Your task to perform on an android device: Open Google Chrome and click the shortcut for Amazon.com Image 0: 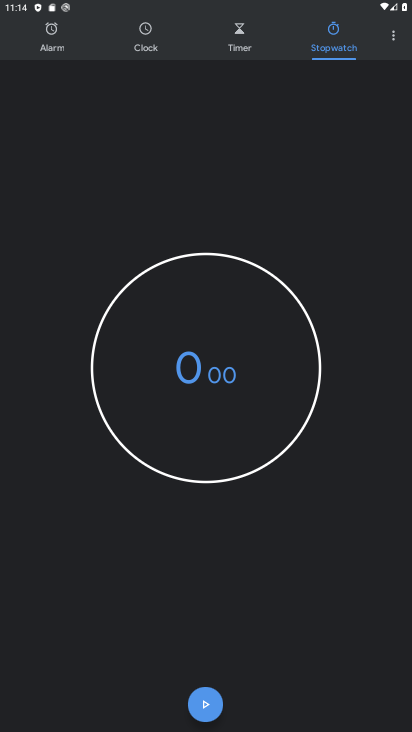
Step 0: press home button
Your task to perform on an android device: Open Google Chrome and click the shortcut for Amazon.com Image 1: 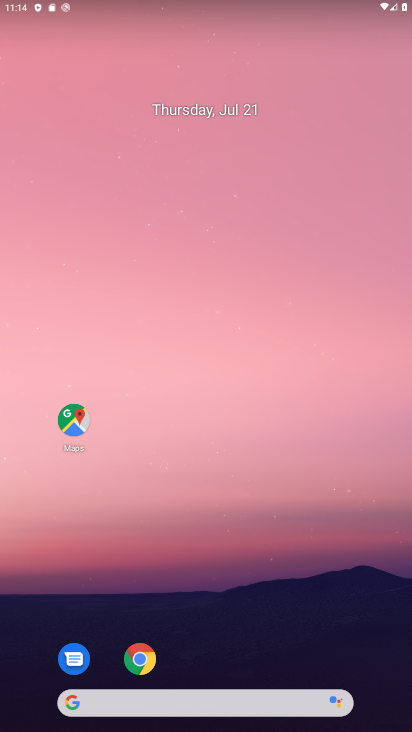
Step 1: click (138, 651)
Your task to perform on an android device: Open Google Chrome and click the shortcut for Amazon.com Image 2: 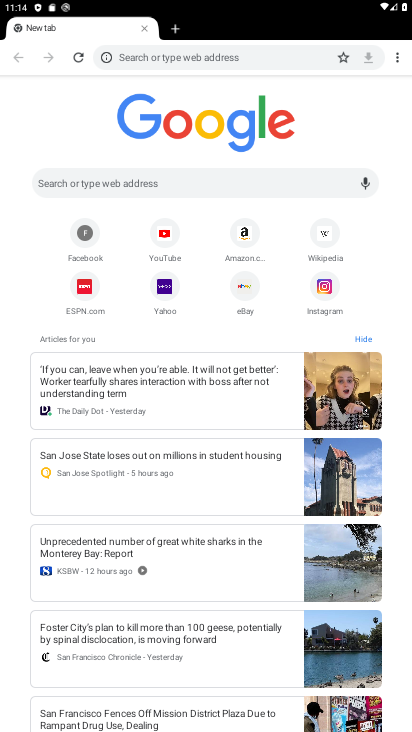
Step 2: click (238, 222)
Your task to perform on an android device: Open Google Chrome and click the shortcut for Amazon.com Image 3: 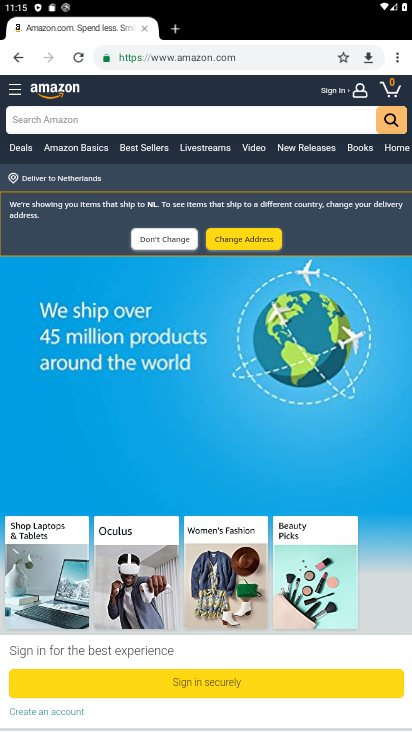
Step 3: task complete